Your task to perform on an android device: Open ESPN.com Image 0: 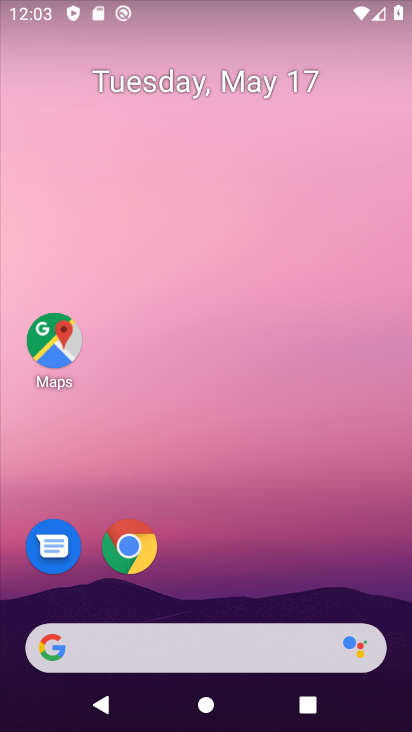
Step 0: click (126, 541)
Your task to perform on an android device: Open ESPN.com Image 1: 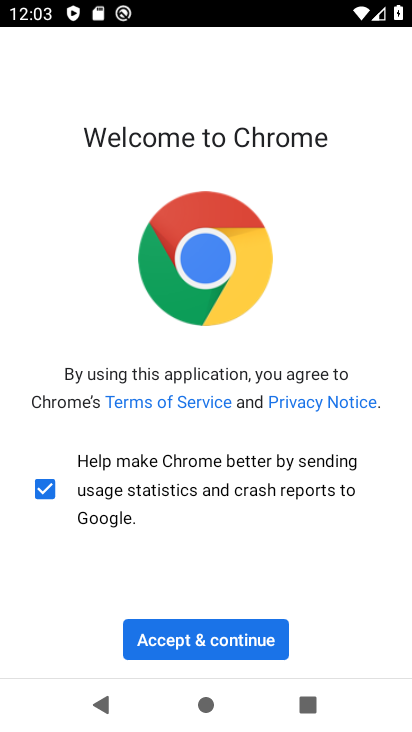
Step 1: click (197, 633)
Your task to perform on an android device: Open ESPN.com Image 2: 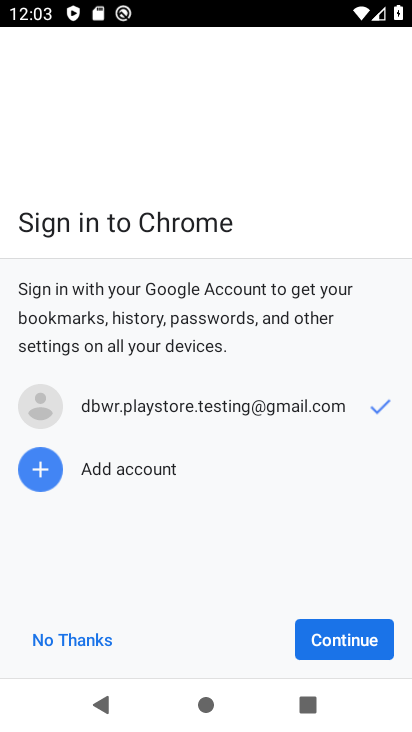
Step 2: click (349, 631)
Your task to perform on an android device: Open ESPN.com Image 3: 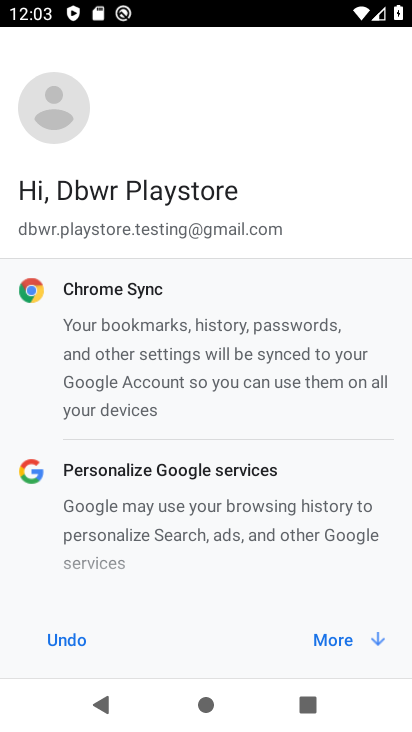
Step 3: click (342, 634)
Your task to perform on an android device: Open ESPN.com Image 4: 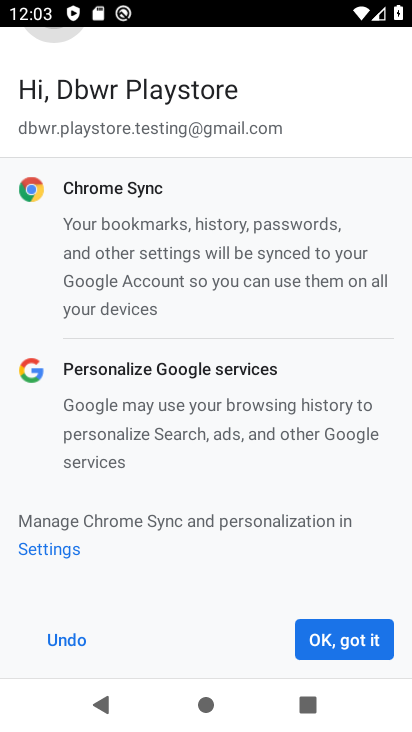
Step 4: click (333, 643)
Your task to perform on an android device: Open ESPN.com Image 5: 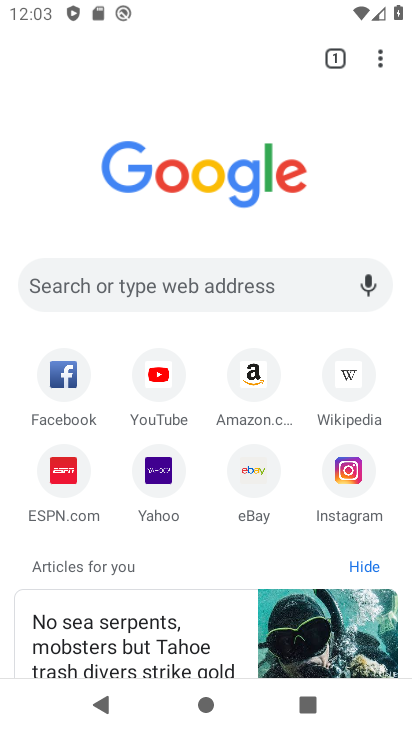
Step 5: click (62, 463)
Your task to perform on an android device: Open ESPN.com Image 6: 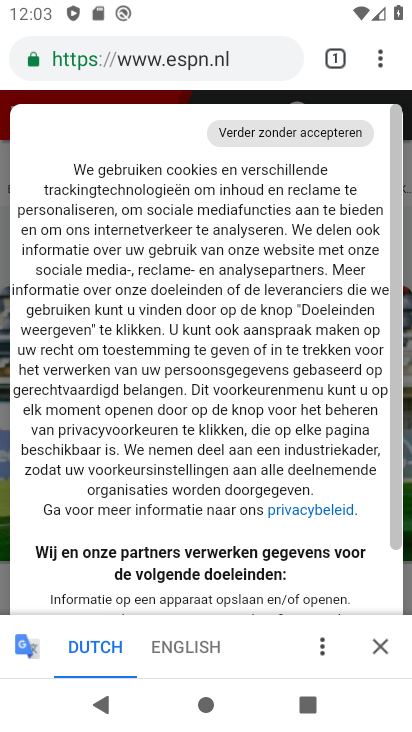
Step 6: click (383, 641)
Your task to perform on an android device: Open ESPN.com Image 7: 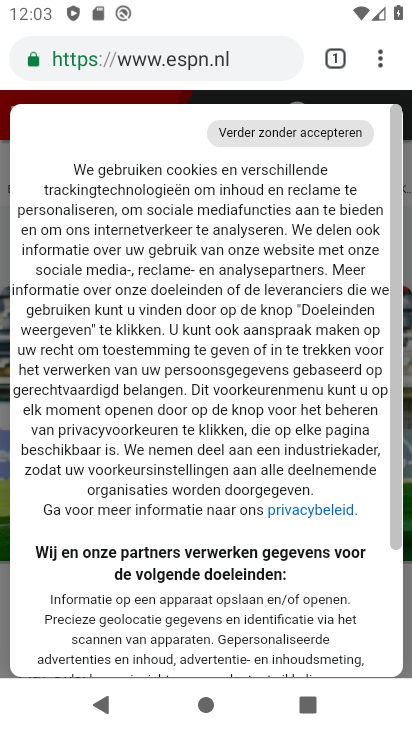
Step 7: drag from (223, 626) to (255, 114)
Your task to perform on an android device: Open ESPN.com Image 8: 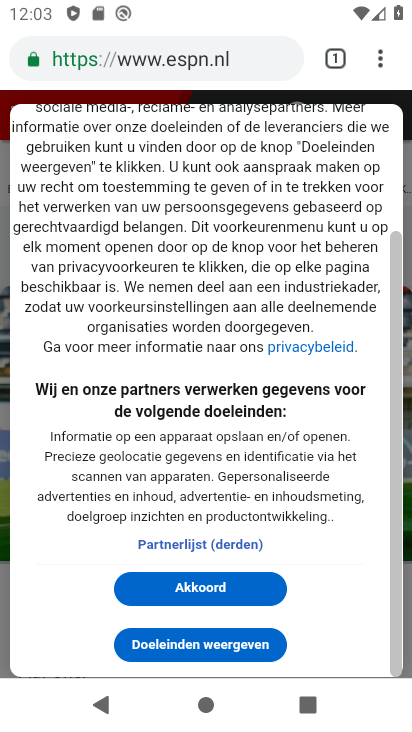
Step 8: click (203, 581)
Your task to perform on an android device: Open ESPN.com Image 9: 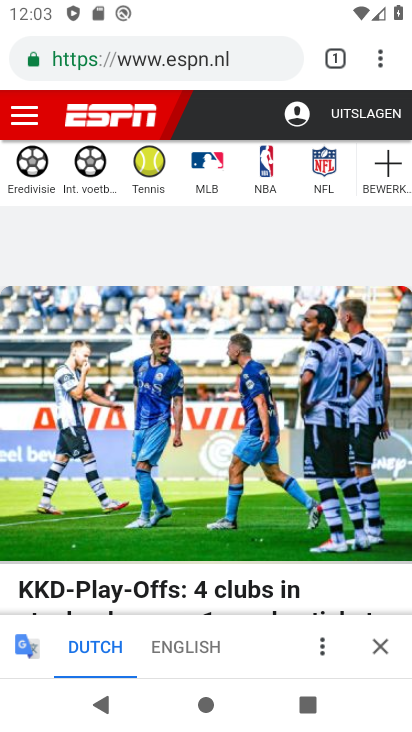
Step 9: click (385, 646)
Your task to perform on an android device: Open ESPN.com Image 10: 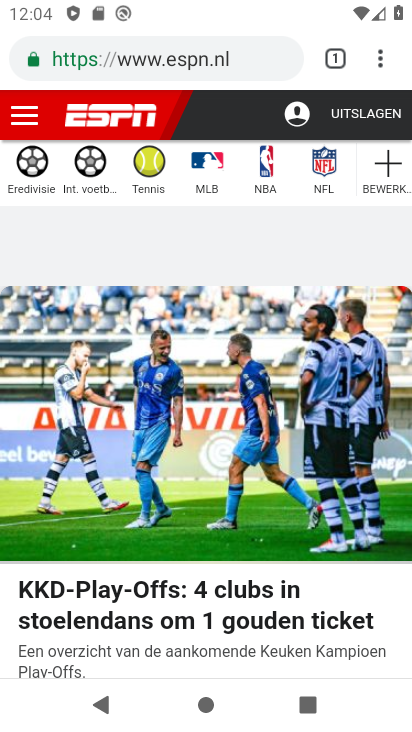
Step 10: click (373, 53)
Your task to perform on an android device: Open ESPN.com Image 11: 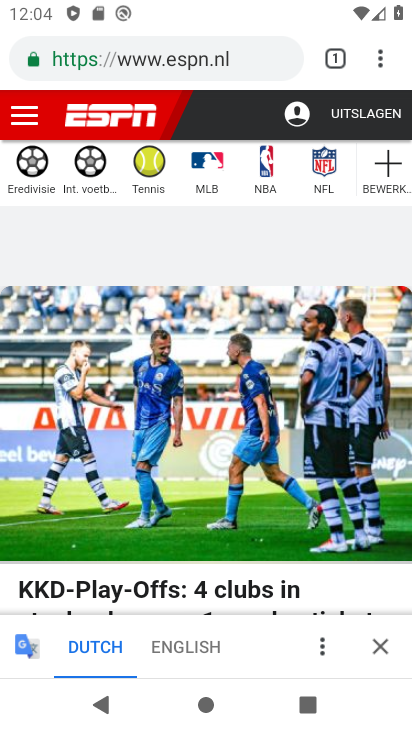
Step 11: task complete